Your task to perform on an android device: Open the calendar app, open the side menu, and click the "Day" option Image 0: 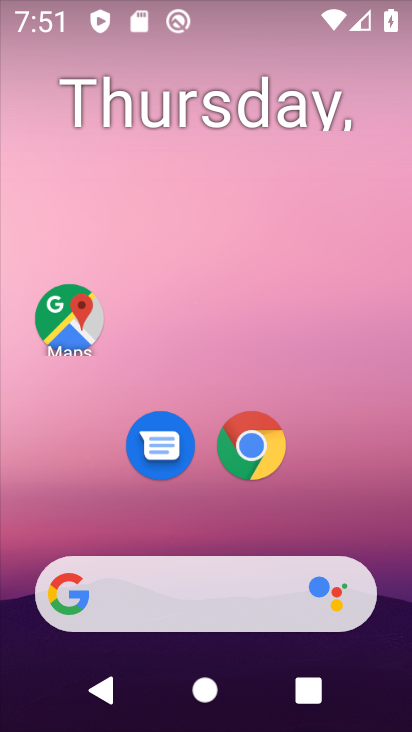
Step 0: drag from (116, 493) to (410, 175)
Your task to perform on an android device: Open the calendar app, open the side menu, and click the "Day" option Image 1: 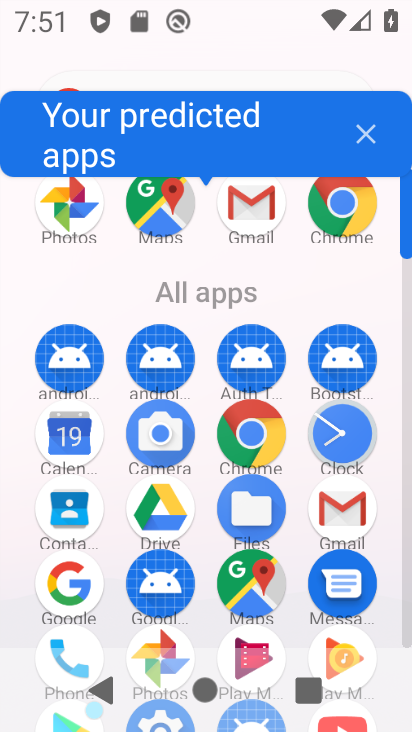
Step 1: click (53, 447)
Your task to perform on an android device: Open the calendar app, open the side menu, and click the "Day" option Image 2: 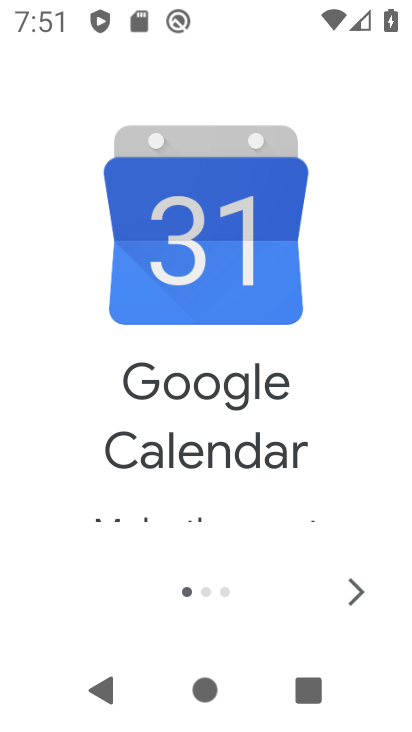
Step 2: click (365, 598)
Your task to perform on an android device: Open the calendar app, open the side menu, and click the "Day" option Image 3: 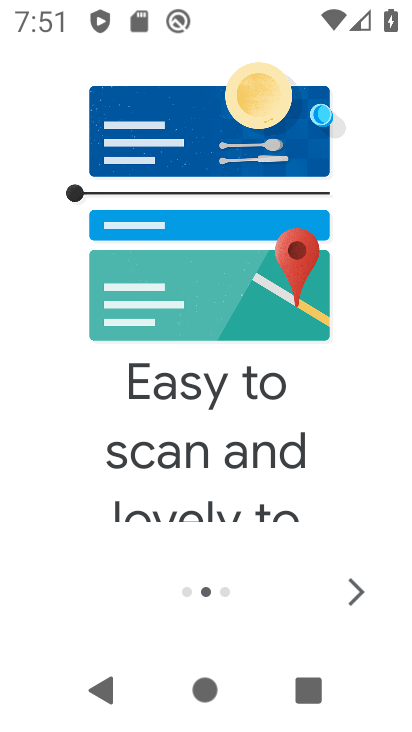
Step 3: click (365, 598)
Your task to perform on an android device: Open the calendar app, open the side menu, and click the "Day" option Image 4: 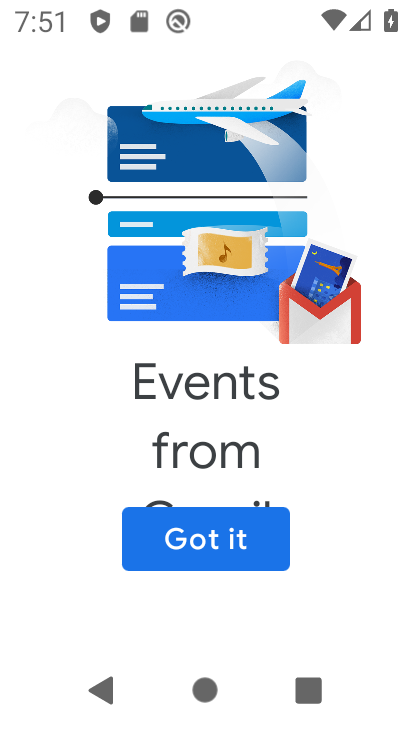
Step 4: click (255, 564)
Your task to perform on an android device: Open the calendar app, open the side menu, and click the "Day" option Image 5: 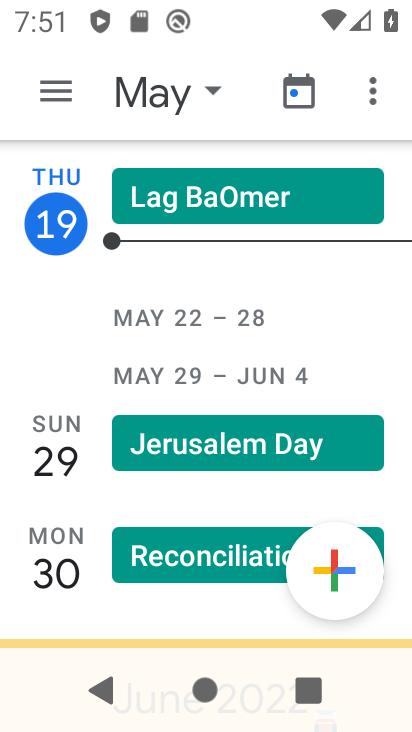
Step 5: click (45, 81)
Your task to perform on an android device: Open the calendar app, open the side menu, and click the "Day" option Image 6: 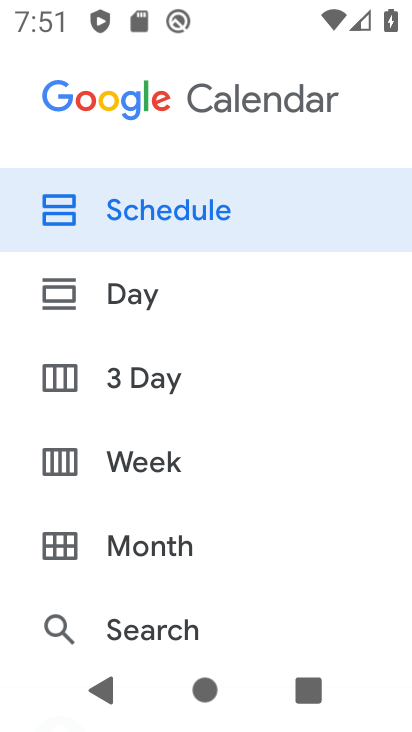
Step 6: click (164, 283)
Your task to perform on an android device: Open the calendar app, open the side menu, and click the "Day" option Image 7: 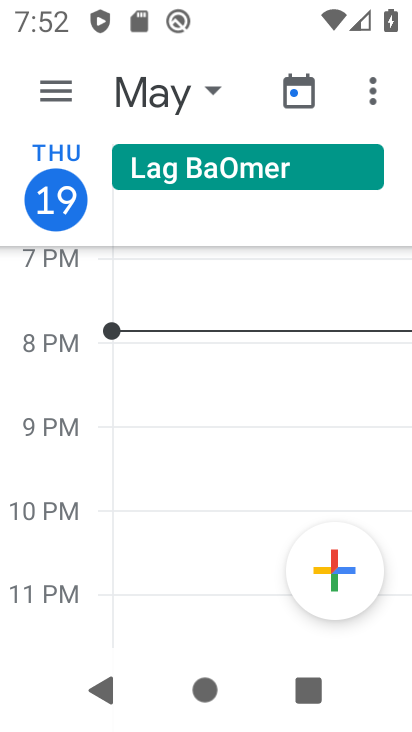
Step 7: click (44, 97)
Your task to perform on an android device: Open the calendar app, open the side menu, and click the "Day" option Image 8: 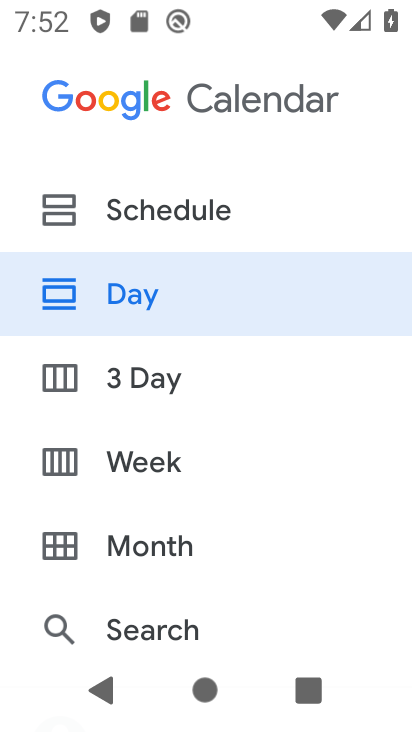
Step 8: click (149, 279)
Your task to perform on an android device: Open the calendar app, open the side menu, and click the "Day" option Image 9: 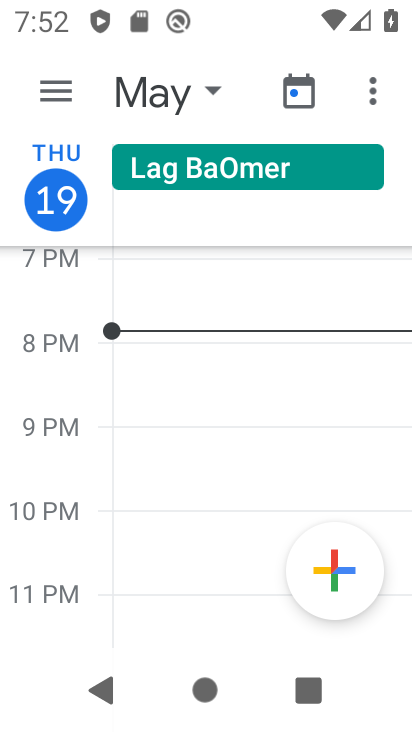
Step 9: task complete